Your task to perform on an android device: Go to internet settings Image 0: 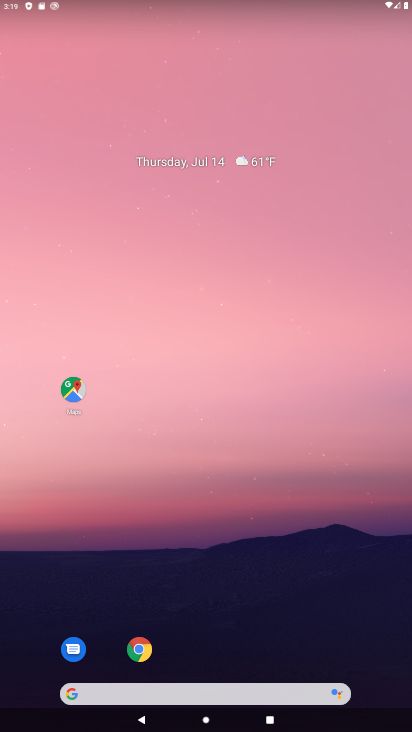
Step 0: drag from (189, 667) to (216, 130)
Your task to perform on an android device: Go to internet settings Image 1: 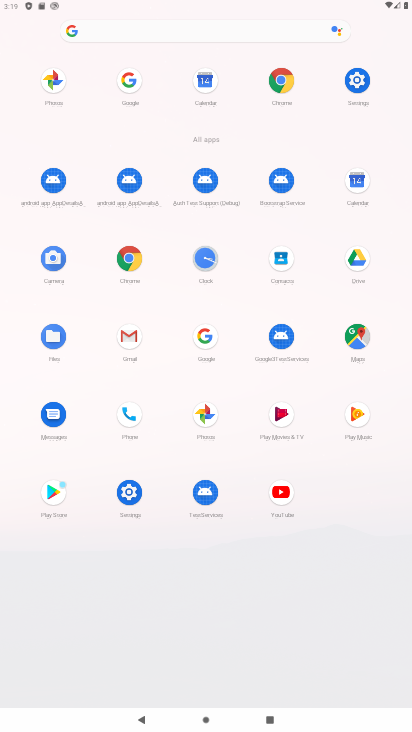
Step 1: click (355, 80)
Your task to perform on an android device: Go to internet settings Image 2: 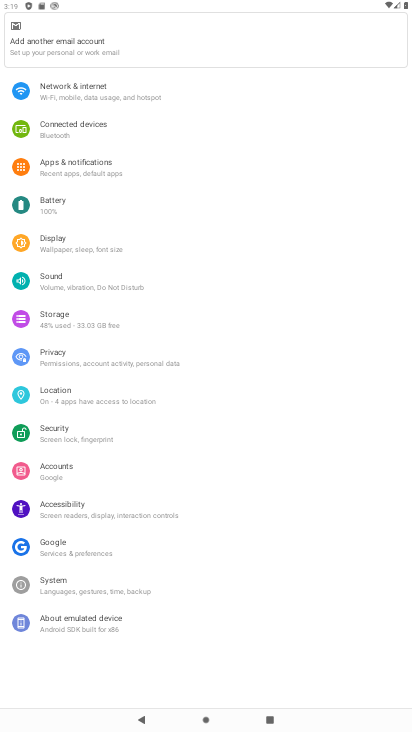
Step 2: click (95, 90)
Your task to perform on an android device: Go to internet settings Image 3: 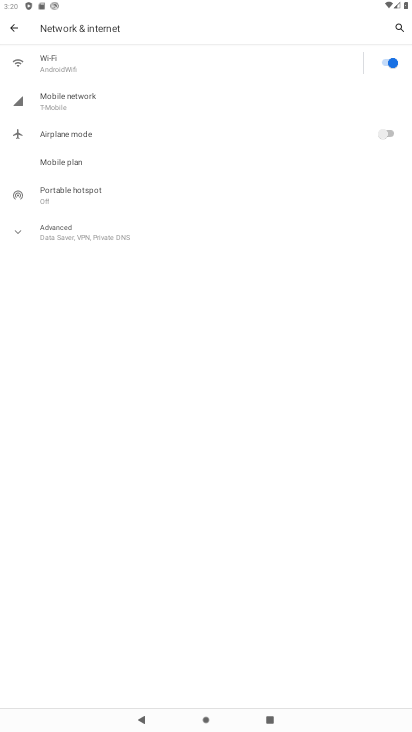
Step 3: click (44, 90)
Your task to perform on an android device: Go to internet settings Image 4: 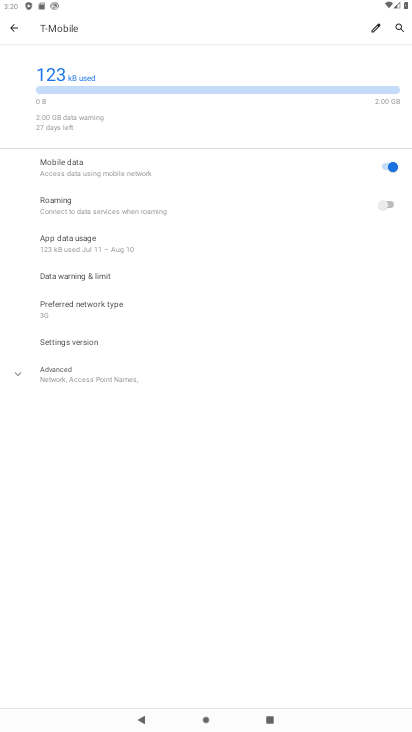
Step 4: task complete